Your task to perform on an android device: Go to Wikipedia Image 0: 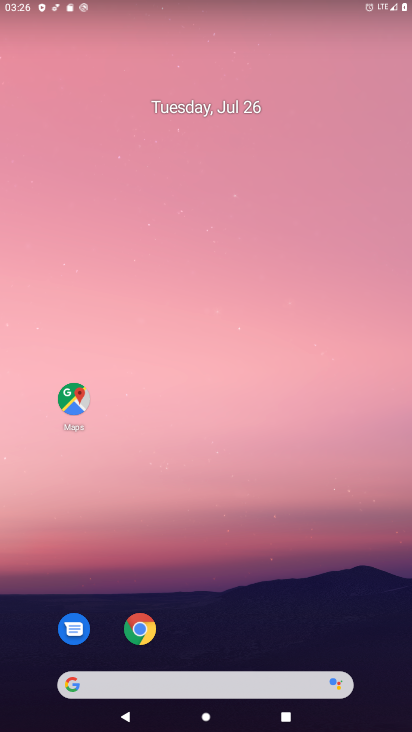
Step 0: drag from (297, 632) to (318, 95)
Your task to perform on an android device: Go to Wikipedia Image 1: 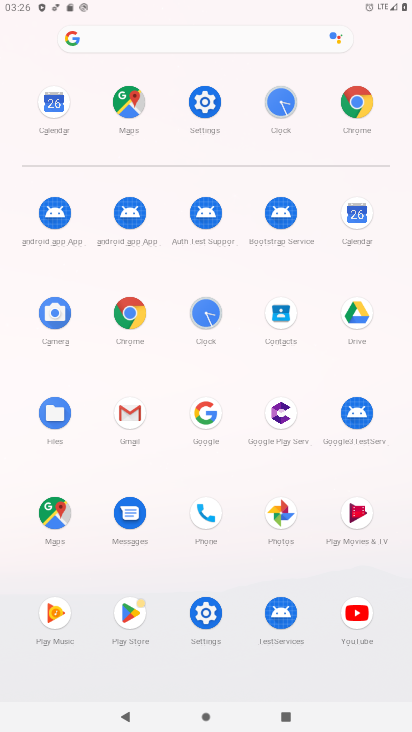
Step 1: click (204, 413)
Your task to perform on an android device: Go to Wikipedia Image 2: 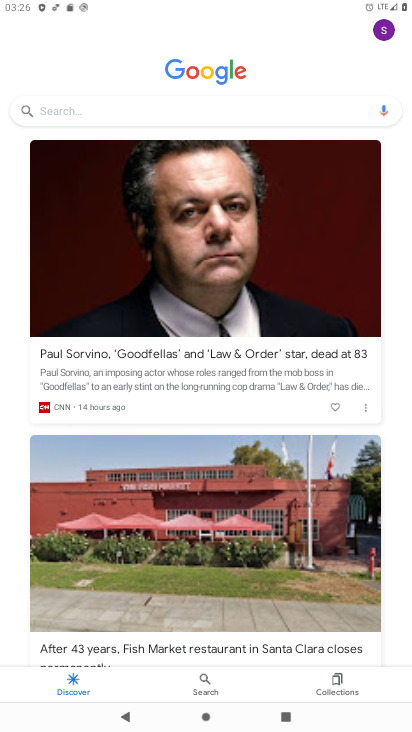
Step 2: click (391, 28)
Your task to perform on an android device: Go to Wikipedia Image 3: 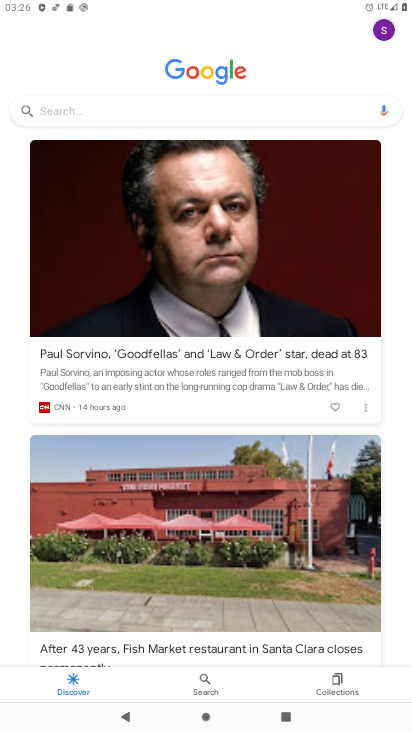
Step 3: drag from (391, 28) to (410, 65)
Your task to perform on an android device: Go to Wikipedia Image 4: 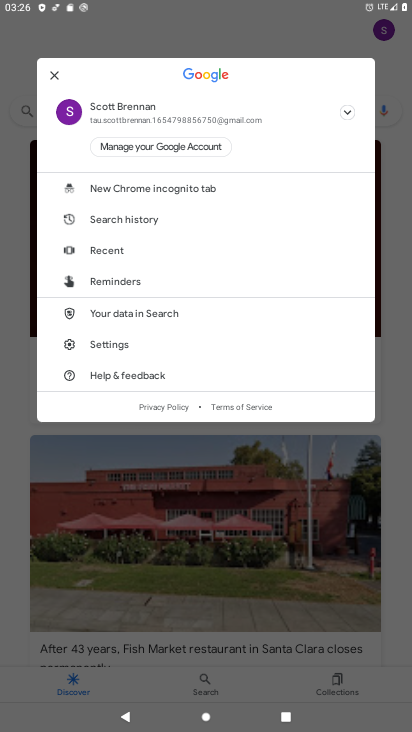
Step 4: press home button
Your task to perform on an android device: Go to Wikipedia Image 5: 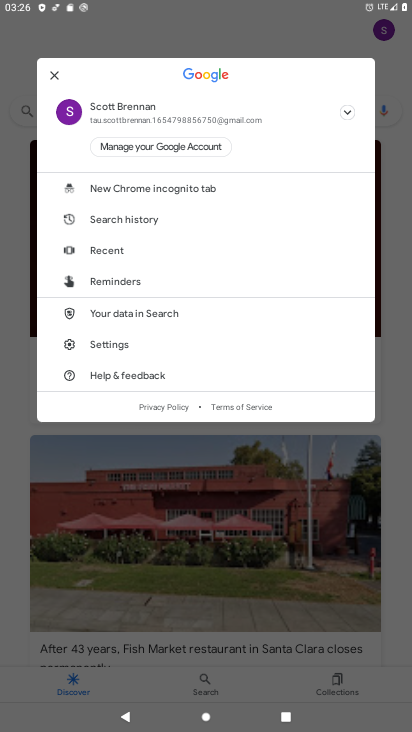
Step 5: drag from (410, 65) to (396, 443)
Your task to perform on an android device: Go to Wikipedia Image 6: 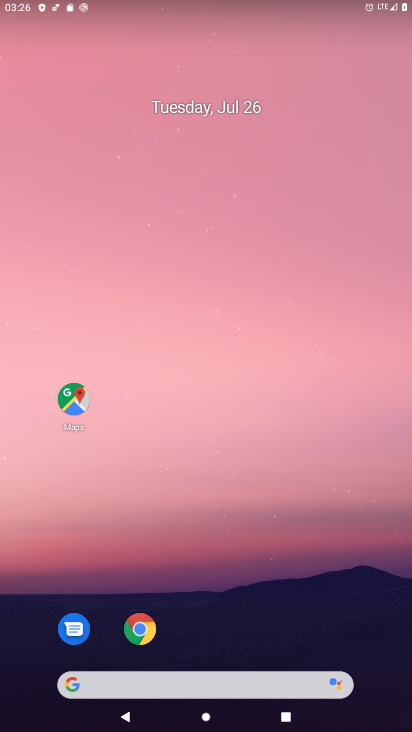
Step 6: drag from (266, 457) to (273, 136)
Your task to perform on an android device: Go to Wikipedia Image 7: 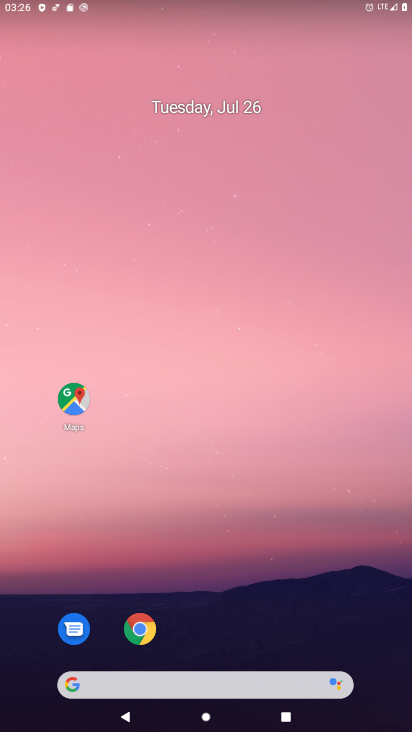
Step 7: drag from (251, 640) to (255, 71)
Your task to perform on an android device: Go to Wikipedia Image 8: 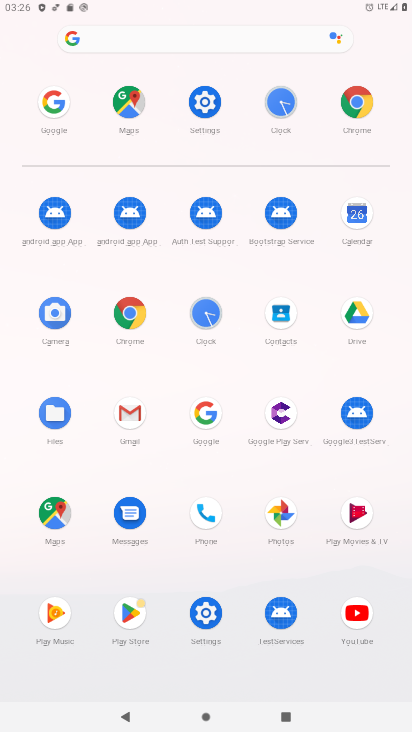
Step 8: click (134, 305)
Your task to perform on an android device: Go to Wikipedia Image 9: 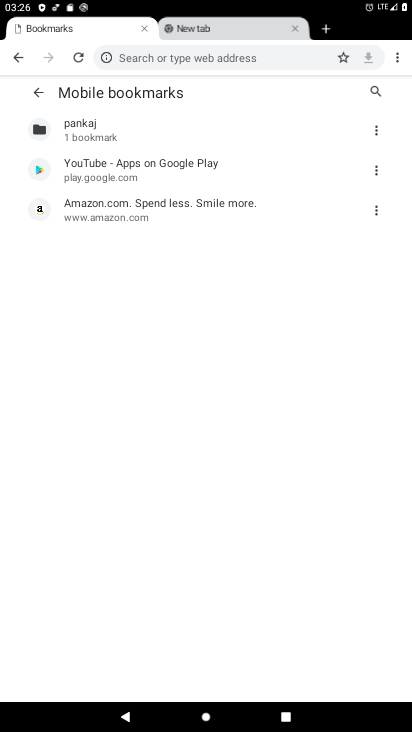
Step 9: click (268, 30)
Your task to perform on an android device: Go to Wikipedia Image 10: 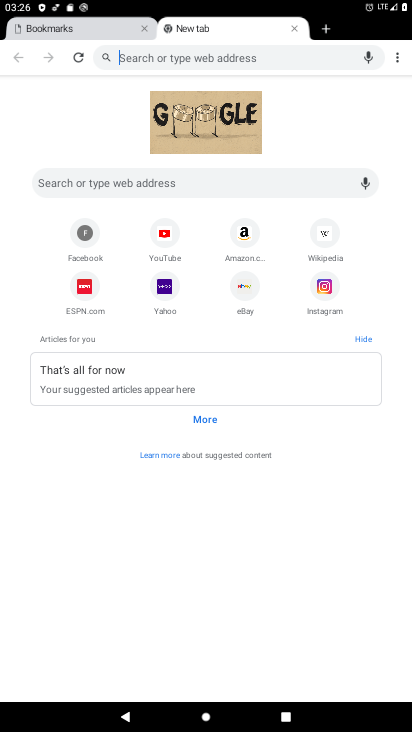
Step 10: click (325, 230)
Your task to perform on an android device: Go to Wikipedia Image 11: 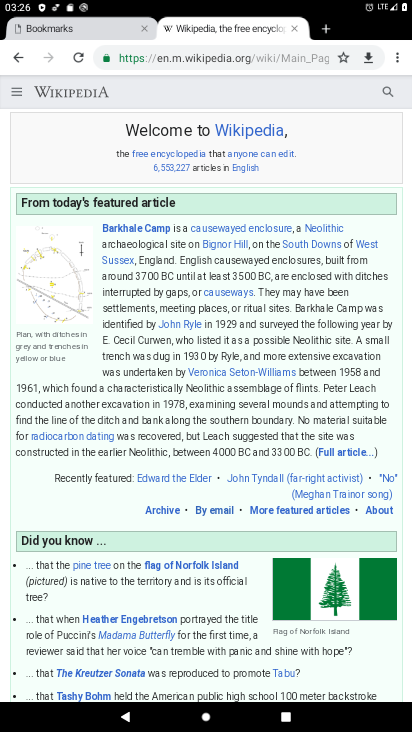
Step 11: task complete